Your task to perform on an android device: open chrome privacy settings Image 0: 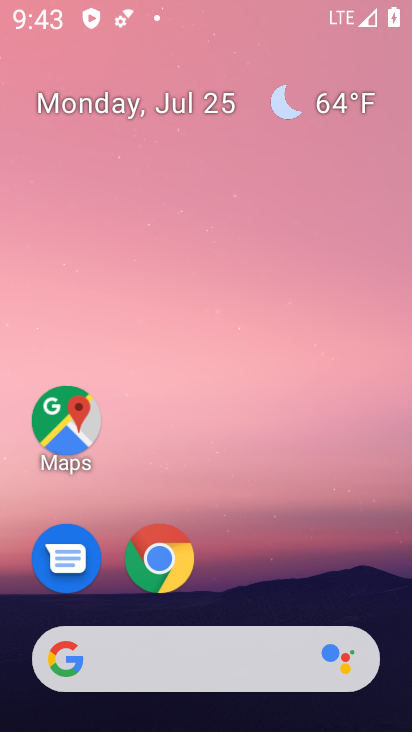
Step 0: press home button
Your task to perform on an android device: open chrome privacy settings Image 1: 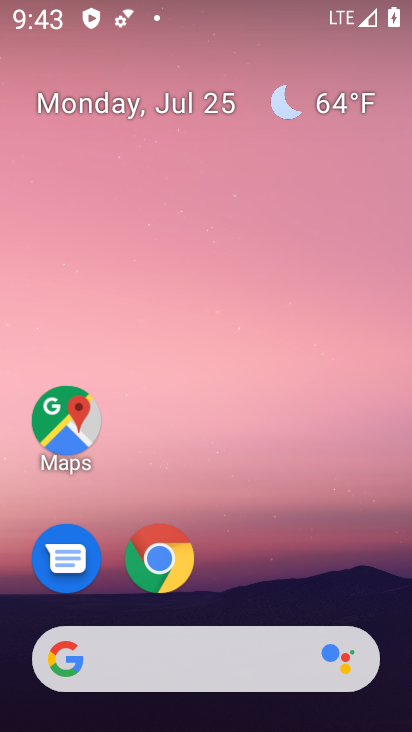
Step 1: drag from (368, 525) to (373, 112)
Your task to perform on an android device: open chrome privacy settings Image 2: 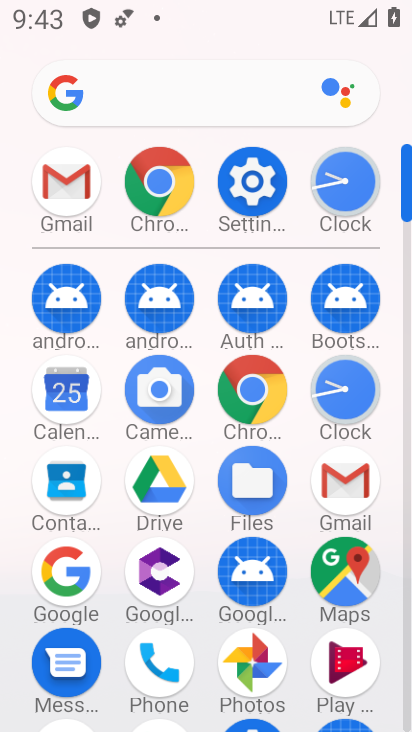
Step 2: click (270, 390)
Your task to perform on an android device: open chrome privacy settings Image 3: 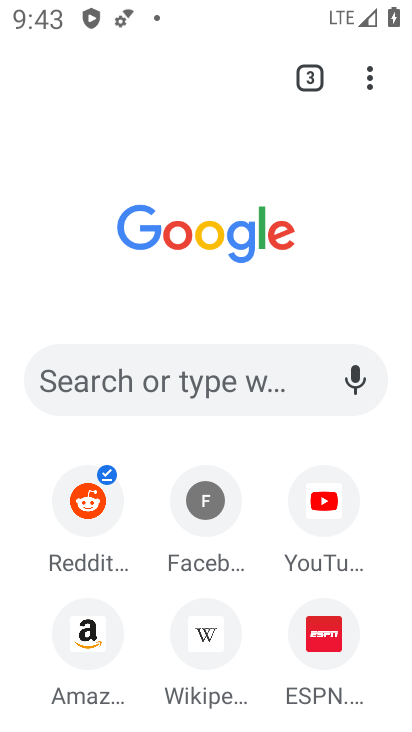
Step 3: click (371, 83)
Your task to perform on an android device: open chrome privacy settings Image 4: 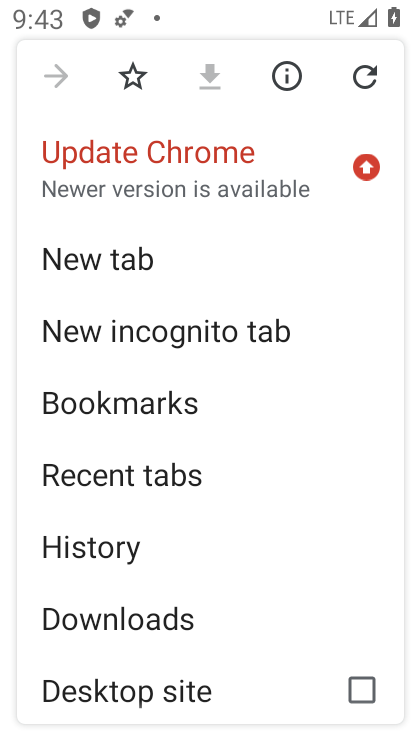
Step 4: drag from (324, 533) to (307, 434)
Your task to perform on an android device: open chrome privacy settings Image 5: 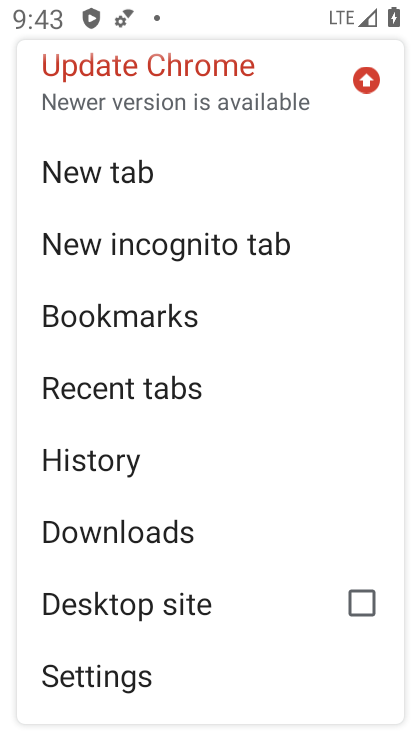
Step 5: drag from (286, 549) to (298, 461)
Your task to perform on an android device: open chrome privacy settings Image 6: 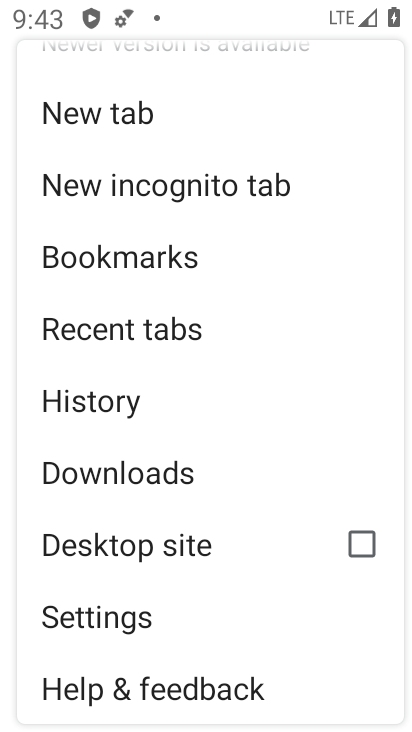
Step 6: click (232, 617)
Your task to perform on an android device: open chrome privacy settings Image 7: 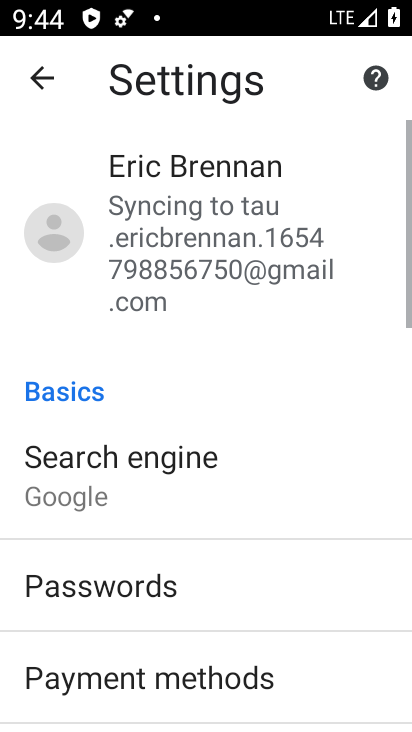
Step 7: drag from (319, 583) to (323, 484)
Your task to perform on an android device: open chrome privacy settings Image 8: 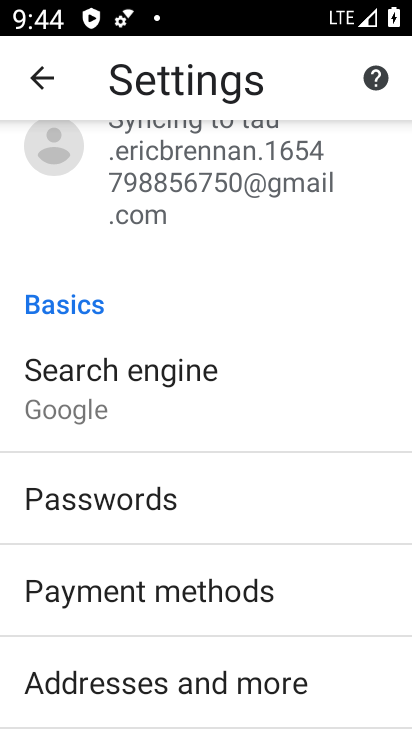
Step 8: drag from (346, 614) to (355, 489)
Your task to perform on an android device: open chrome privacy settings Image 9: 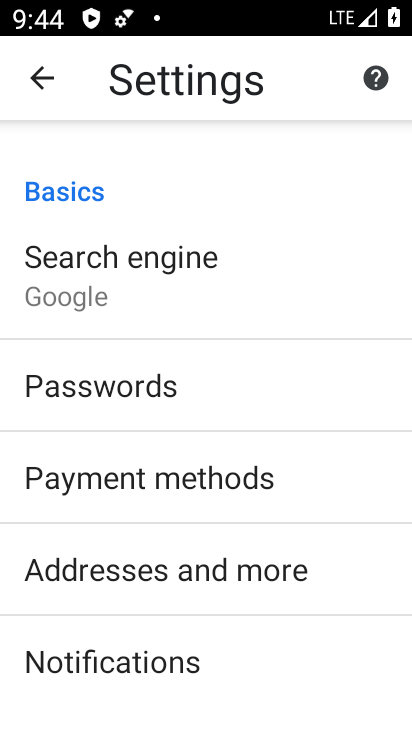
Step 9: drag from (362, 643) to (364, 542)
Your task to perform on an android device: open chrome privacy settings Image 10: 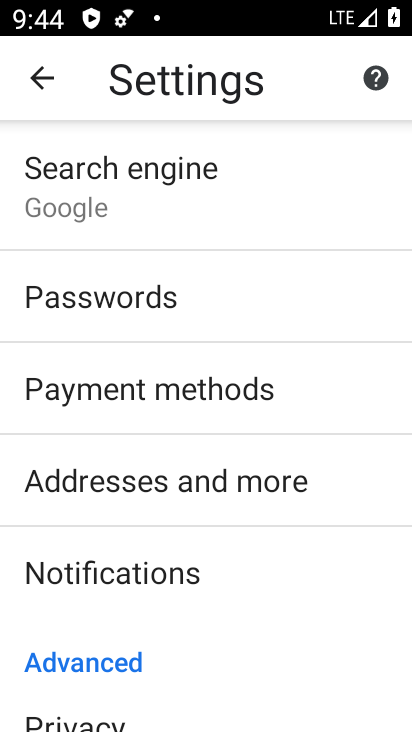
Step 10: drag from (352, 606) to (354, 507)
Your task to perform on an android device: open chrome privacy settings Image 11: 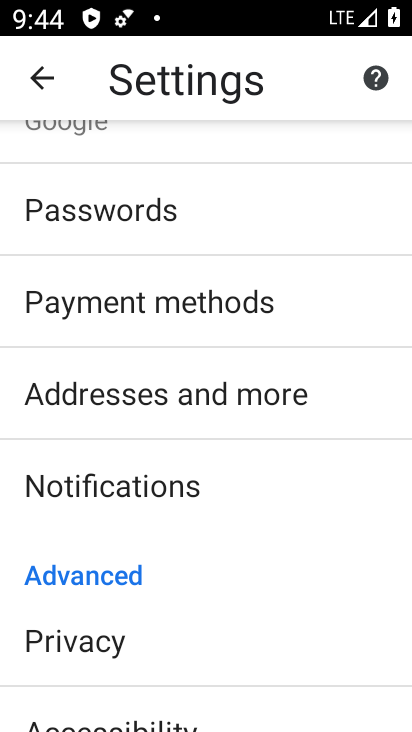
Step 11: drag from (346, 636) to (349, 531)
Your task to perform on an android device: open chrome privacy settings Image 12: 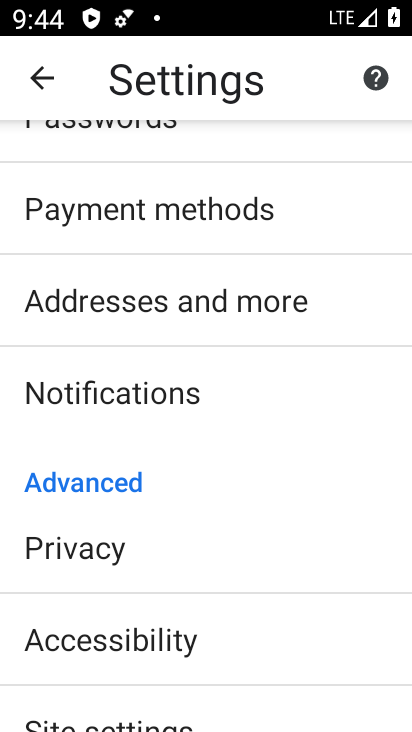
Step 12: drag from (338, 671) to (341, 570)
Your task to perform on an android device: open chrome privacy settings Image 13: 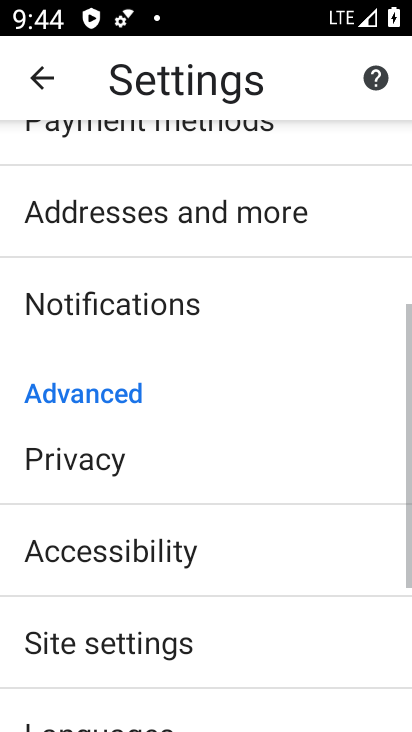
Step 13: drag from (342, 650) to (346, 566)
Your task to perform on an android device: open chrome privacy settings Image 14: 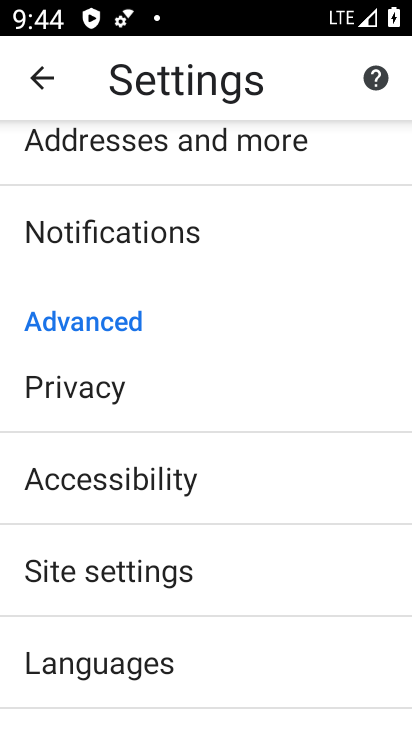
Step 14: drag from (347, 663) to (351, 597)
Your task to perform on an android device: open chrome privacy settings Image 15: 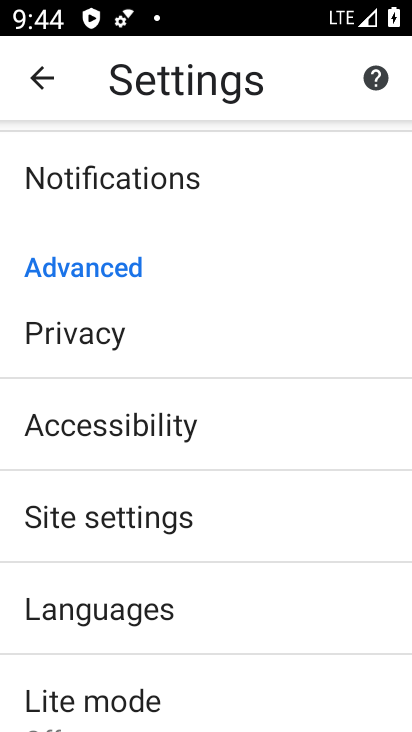
Step 15: drag from (353, 661) to (354, 565)
Your task to perform on an android device: open chrome privacy settings Image 16: 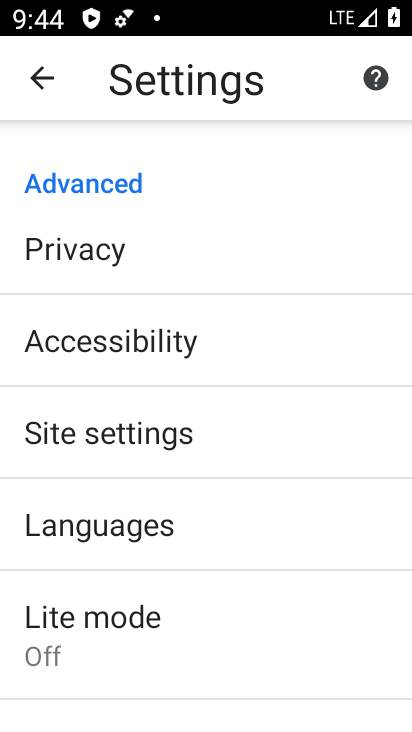
Step 16: drag from (328, 326) to (324, 407)
Your task to perform on an android device: open chrome privacy settings Image 17: 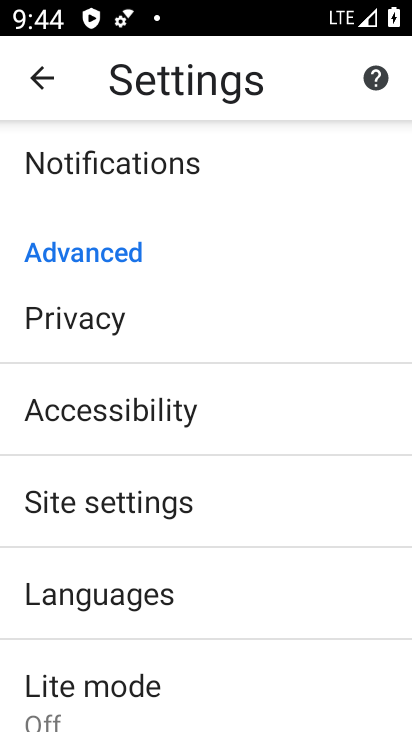
Step 17: drag from (331, 286) to (330, 412)
Your task to perform on an android device: open chrome privacy settings Image 18: 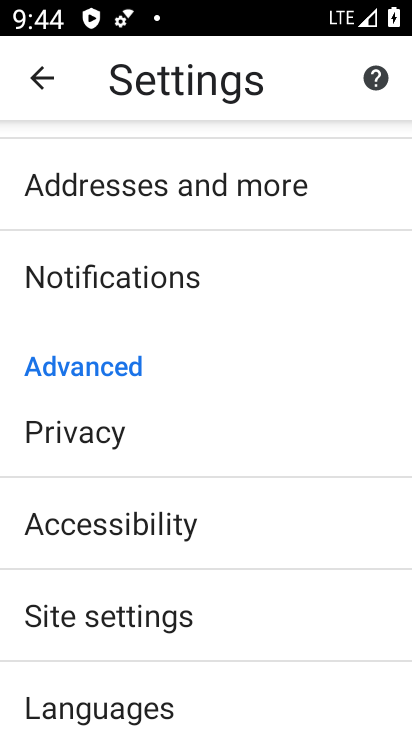
Step 18: click (282, 451)
Your task to perform on an android device: open chrome privacy settings Image 19: 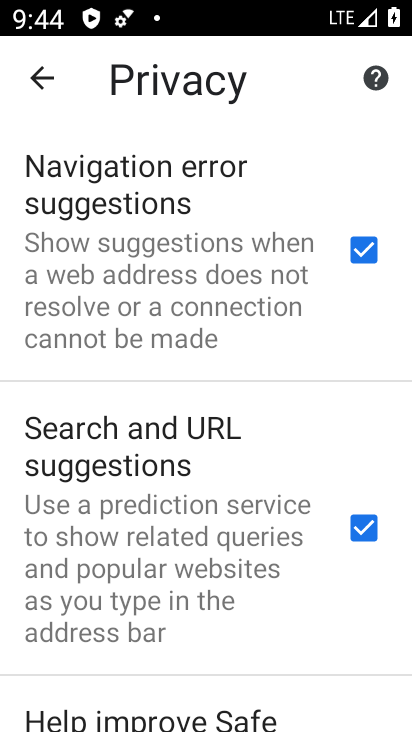
Step 19: task complete